Your task to perform on an android device: Open the stopwatch Image 0: 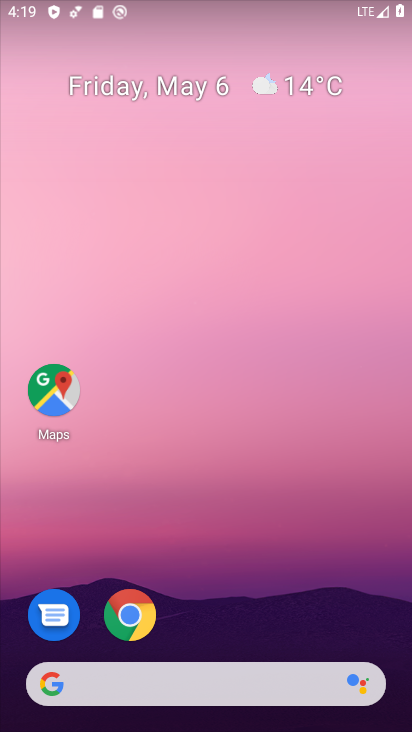
Step 0: drag from (350, 611) to (361, 296)
Your task to perform on an android device: Open the stopwatch Image 1: 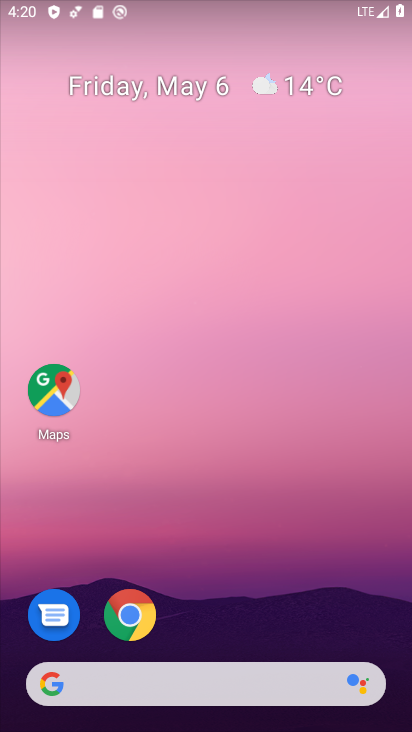
Step 1: drag from (245, 582) to (216, 231)
Your task to perform on an android device: Open the stopwatch Image 2: 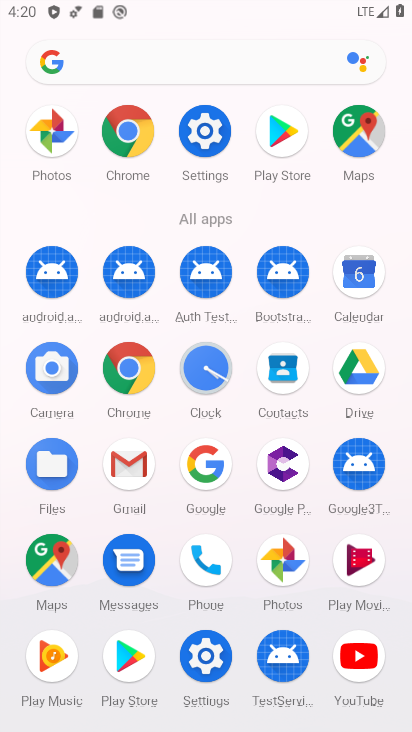
Step 2: click (218, 358)
Your task to perform on an android device: Open the stopwatch Image 3: 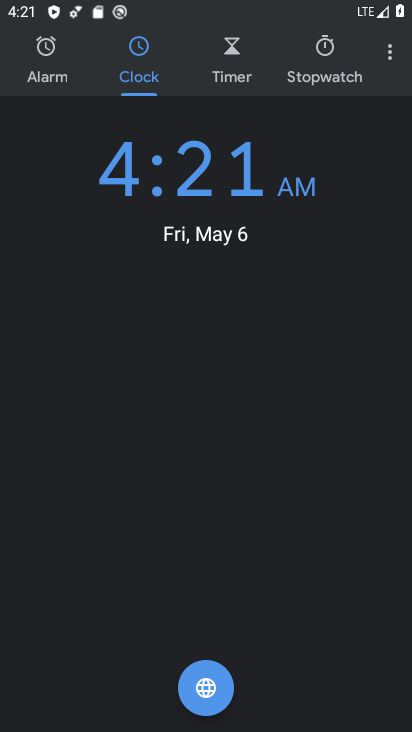
Step 3: click (309, 77)
Your task to perform on an android device: Open the stopwatch Image 4: 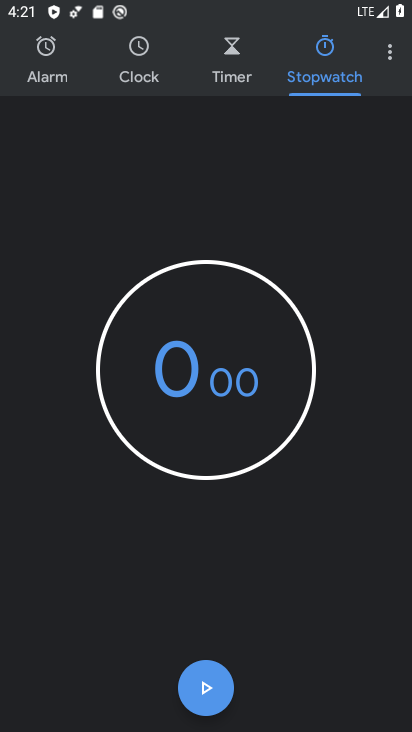
Step 4: task complete